Your task to perform on an android device: choose inbox layout in the gmail app Image 0: 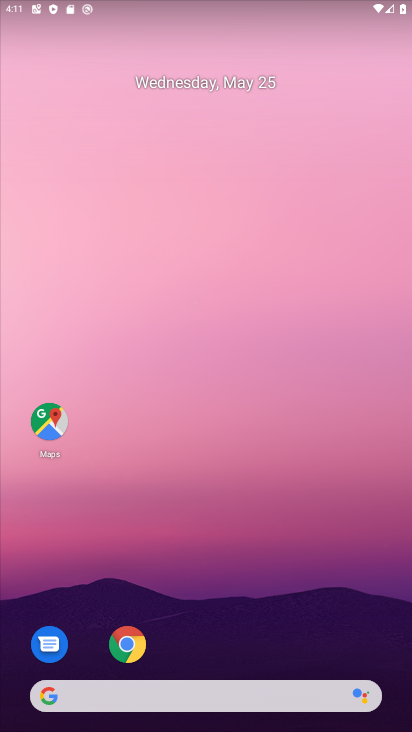
Step 0: drag from (250, 666) to (248, 0)
Your task to perform on an android device: choose inbox layout in the gmail app Image 1: 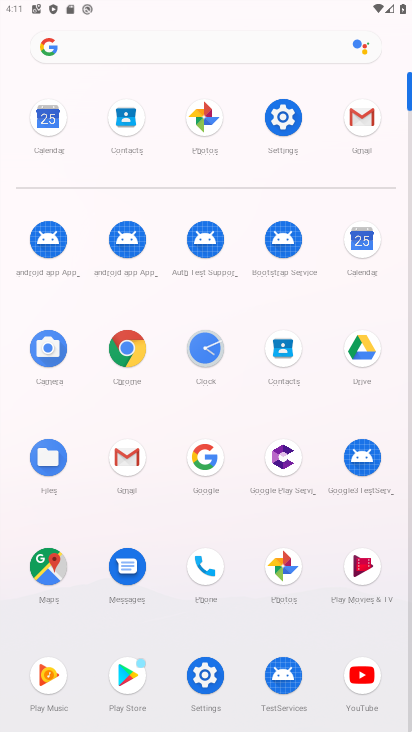
Step 1: click (360, 122)
Your task to perform on an android device: choose inbox layout in the gmail app Image 2: 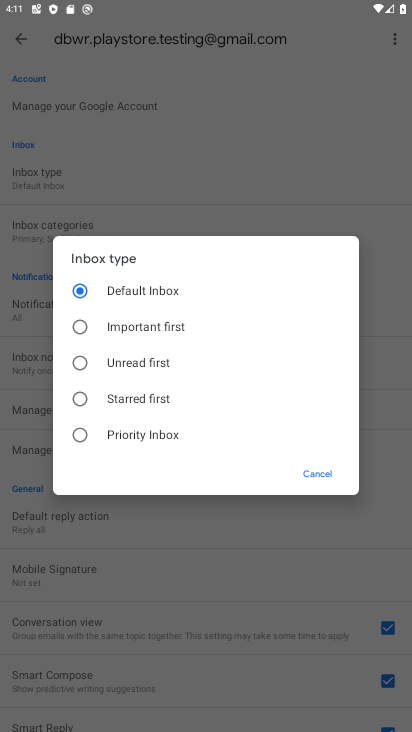
Step 2: click (322, 475)
Your task to perform on an android device: choose inbox layout in the gmail app Image 3: 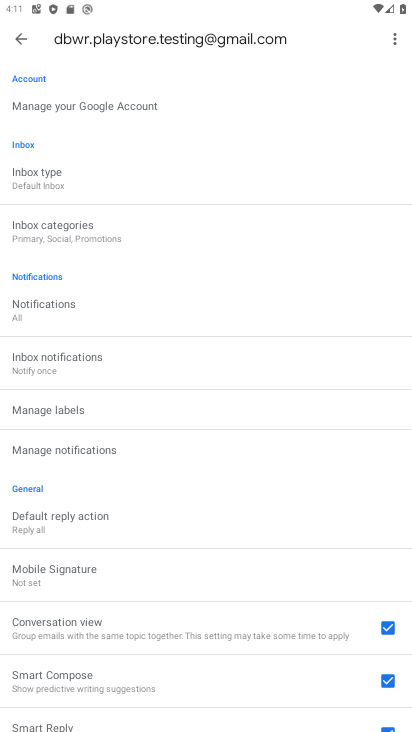
Step 3: click (44, 183)
Your task to perform on an android device: choose inbox layout in the gmail app Image 4: 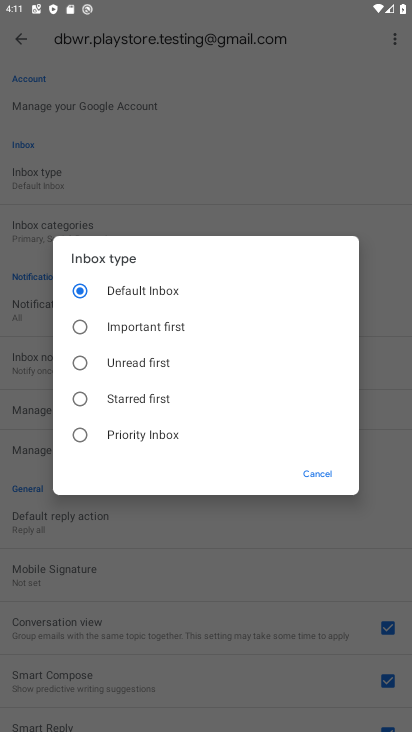
Step 4: click (77, 366)
Your task to perform on an android device: choose inbox layout in the gmail app Image 5: 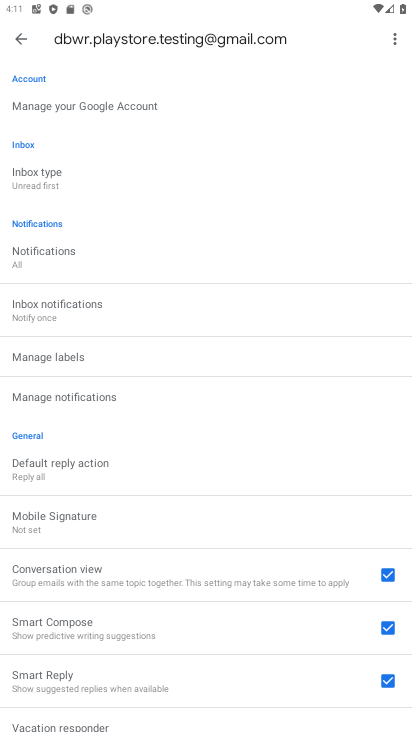
Step 5: task complete